Your task to perform on an android device: turn off location history Image 0: 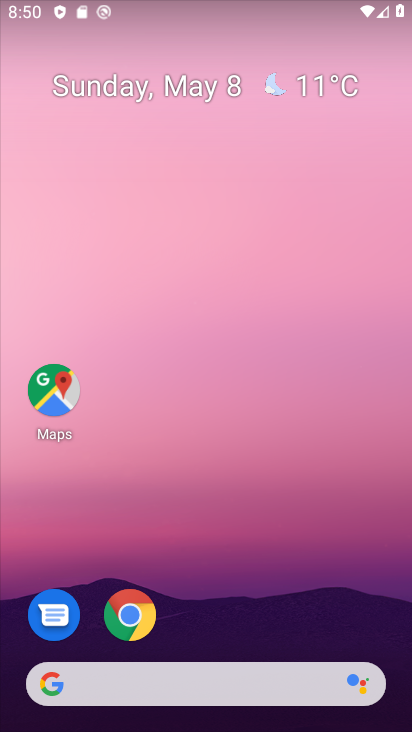
Step 0: drag from (290, 622) to (320, 67)
Your task to perform on an android device: turn off location history Image 1: 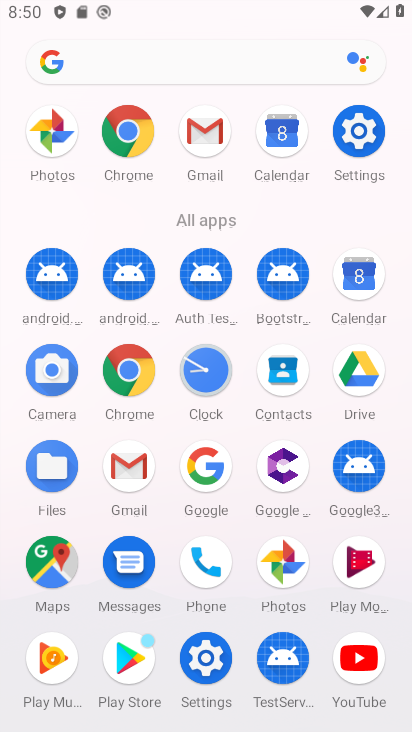
Step 1: click (358, 132)
Your task to perform on an android device: turn off location history Image 2: 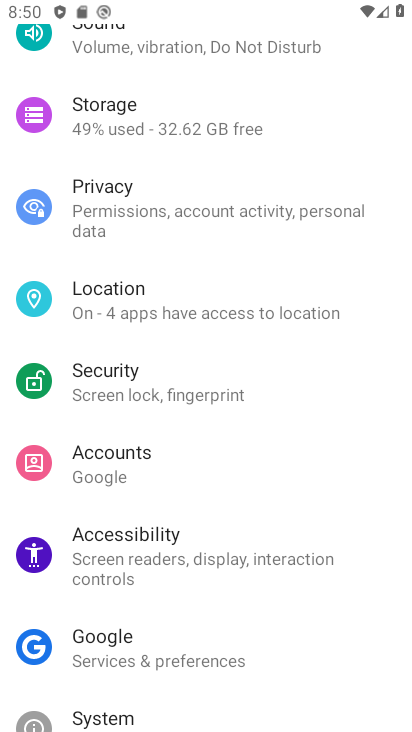
Step 2: click (90, 315)
Your task to perform on an android device: turn off location history Image 3: 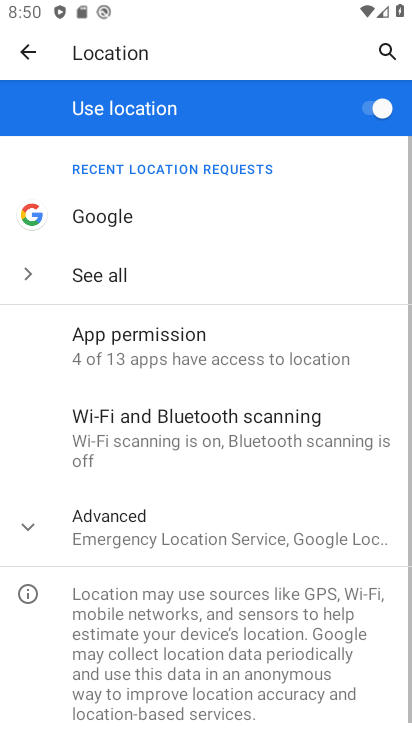
Step 3: click (111, 524)
Your task to perform on an android device: turn off location history Image 4: 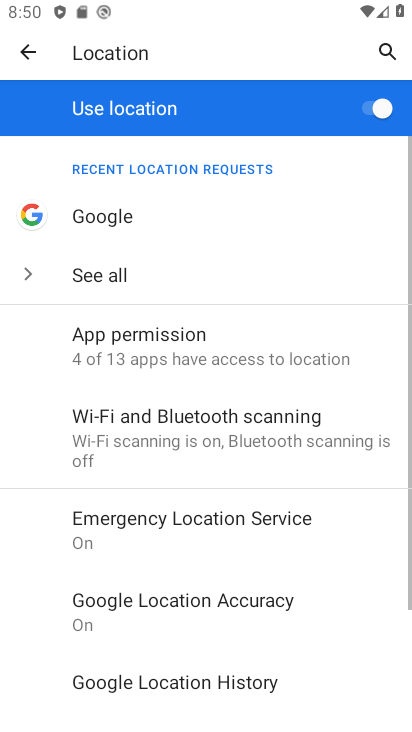
Step 4: drag from (346, 691) to (264, 331)
Your task to perform on an android device: turn off location history Image 5: 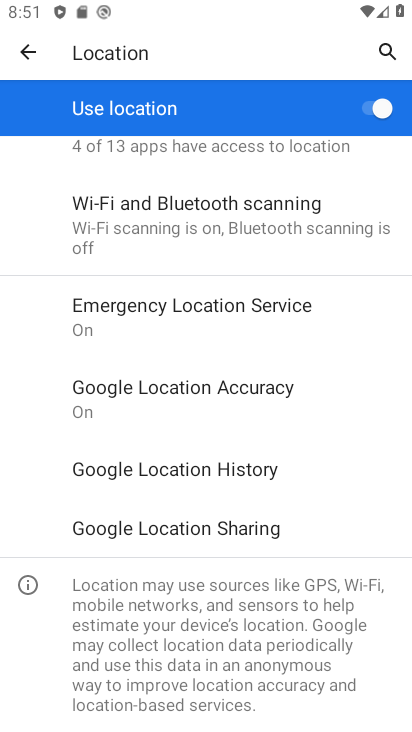
Step 5: click (172, 463)
Your task to perform on an android device: turn off location history Image 6: 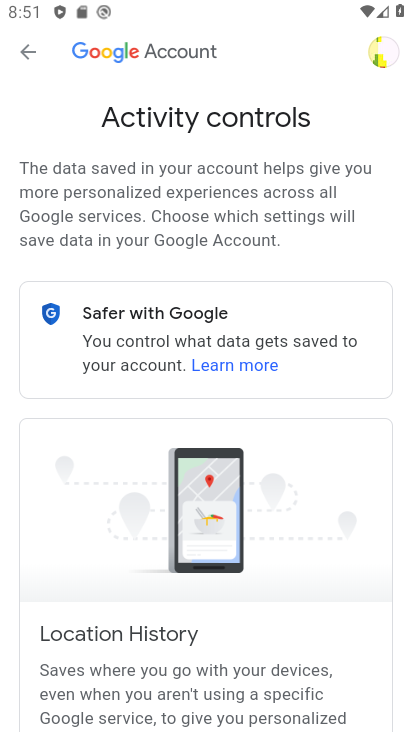
Step 6: drag from (304, 643) to (274, 173)
Your task to perform on an android device: turn off location history Image 7: 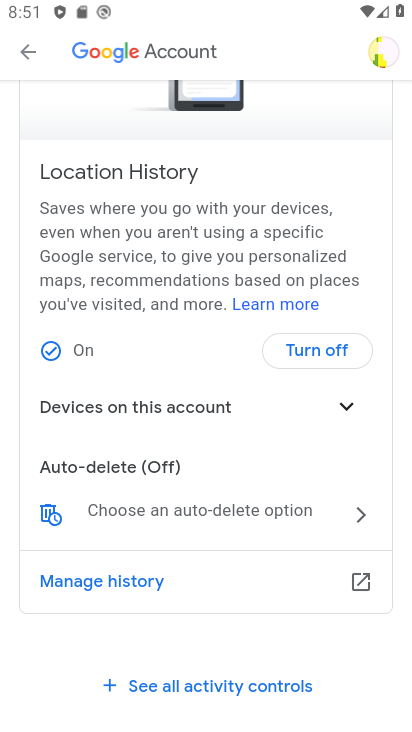
Step 7: click (346, 347)
Your task to perform on an android device: turn off location history Image 8: 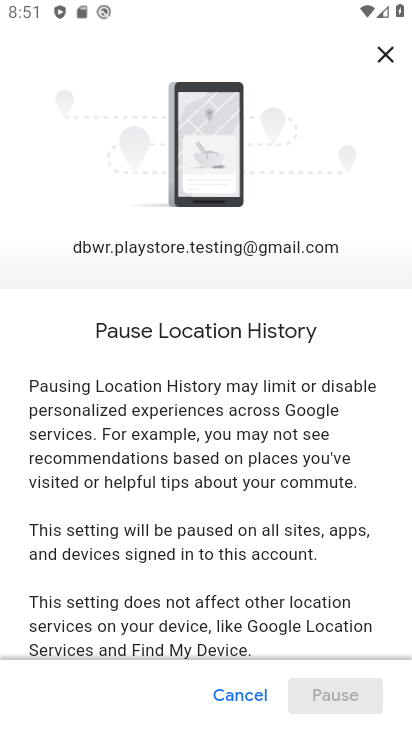
Step 8: drag from (245, 608) to (341, 103)
Your task to perform on an android device: turn off location history Image 9: 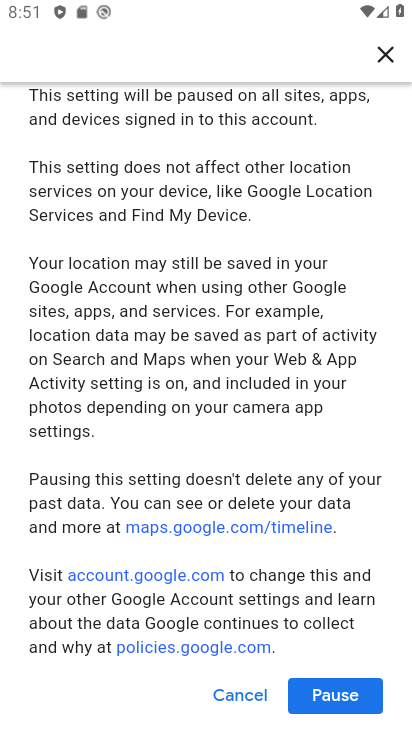
Step 9: click (349, 687)
Your task to perform on an android device: turn off location history Image 10: 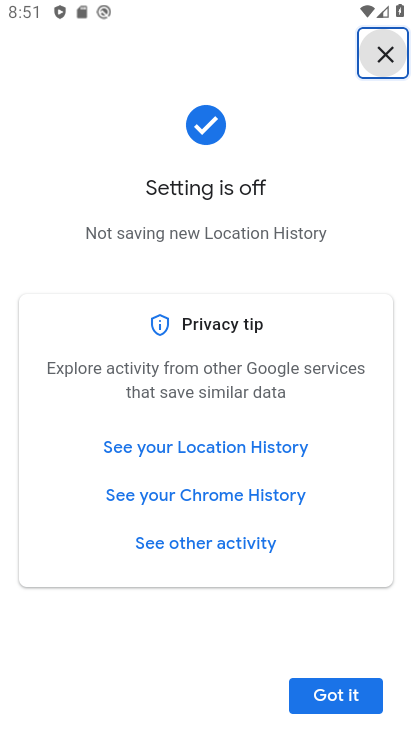
Step 10: task complete